Your task to perform on an android device: toggle wifi Image 0: 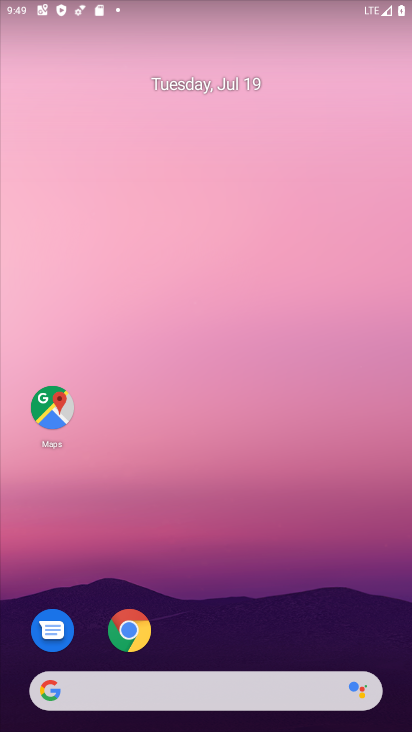
Step 0: drag from (182, 707) to (238, 237)
Your task to perform on an android device: toggle wifi Image 1: 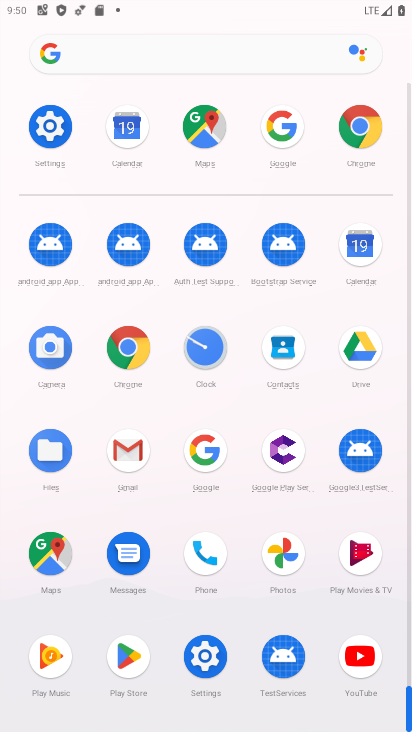
Step 1: click (51, 148)
Your task to perform on an android device: toggle wifi Image 2: 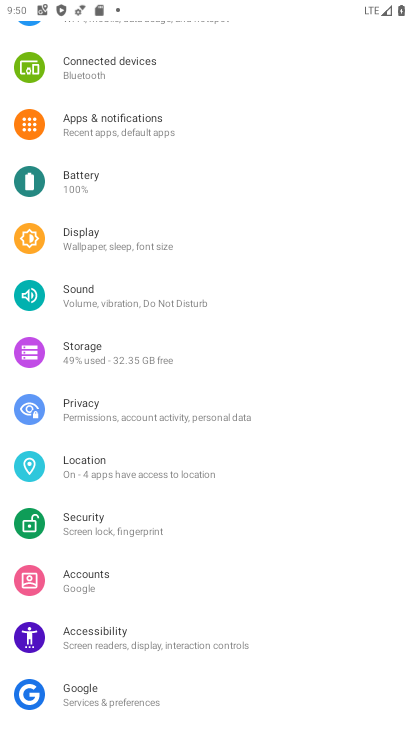
Step 2: drag from (162, 208) to (170, 587)
Your task to perform on an android device: toggle wifi Image 3: 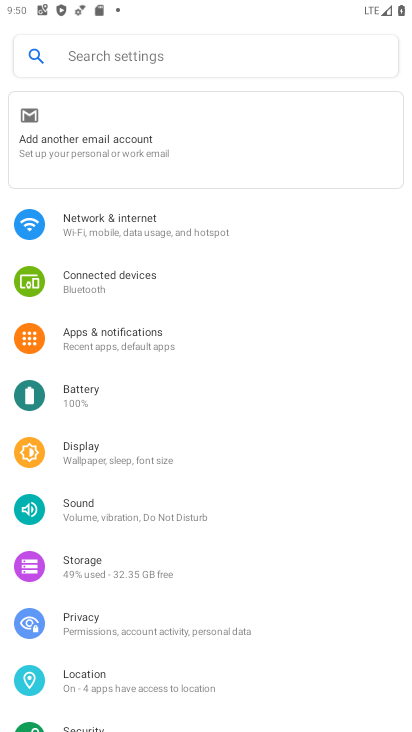
Step 3: click (171, 232)
Your task to perform on an android device: toggle wifi Image 4: 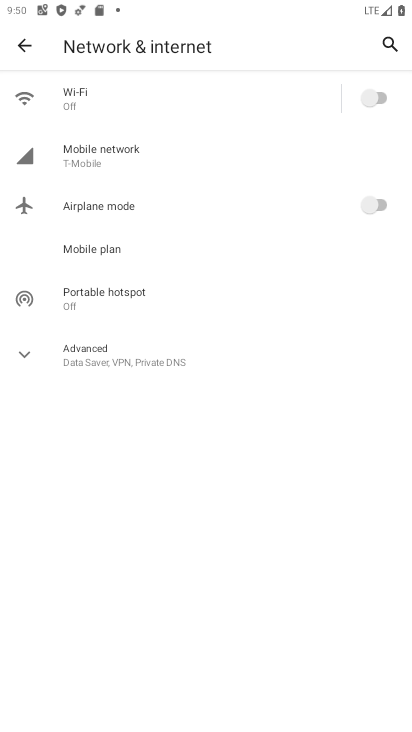
Step 4: click (386, 101)
Your task to perform on an android device: toggle wifi Image 5: 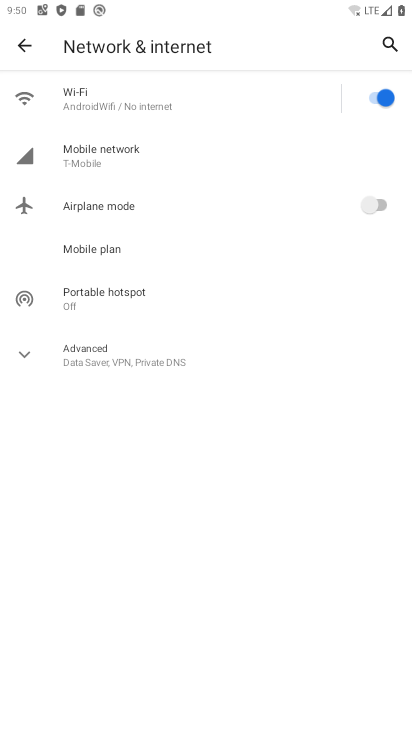
Step 5: task complete